Your task to perform on an android device: set default search engine in the chrome app Image 0: 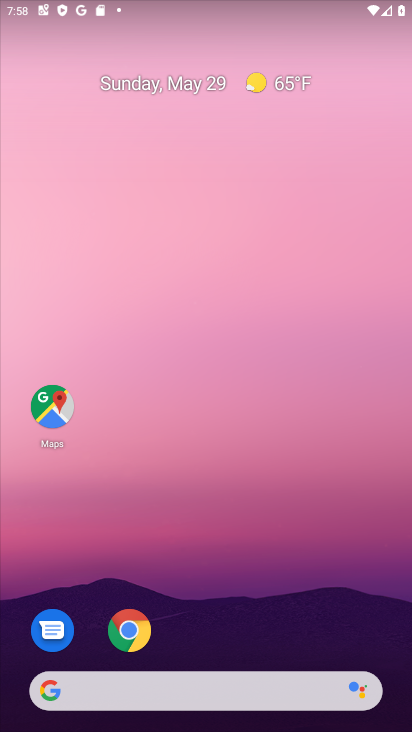
Step 0: click (126, 631)
Your task to perform on an android device: set default search engine in the chrome app Image 1: 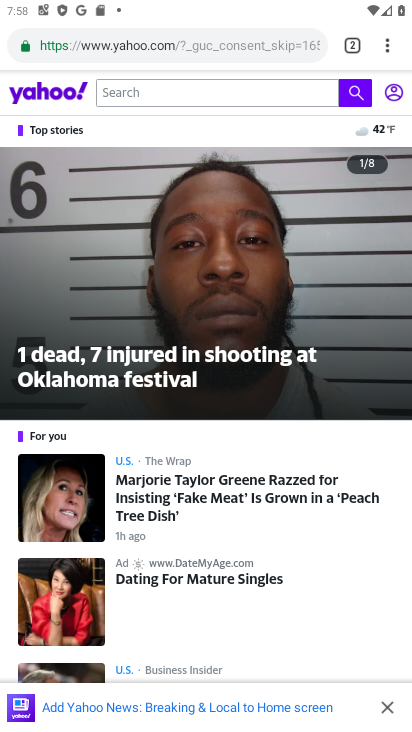
Step 1: click (389, 50)
Your task to perform on an android device: set default search engine in the chrome app Image 2: 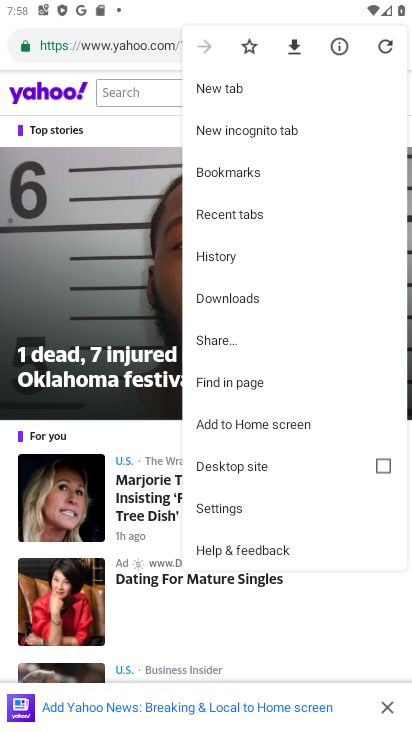
Step 2: click (221, 506)
Your task to perform on an android device: set default search engine in the chrome app Image 3: 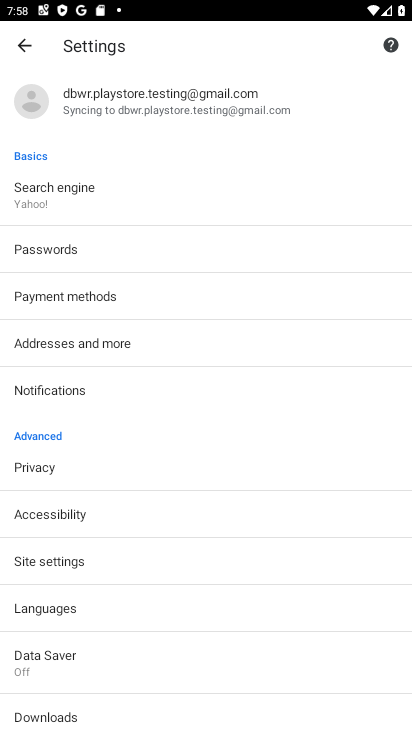
Step 3: click (31, 188)
Your task to perform on an android device: set default search engine in the chrome app Image 4: 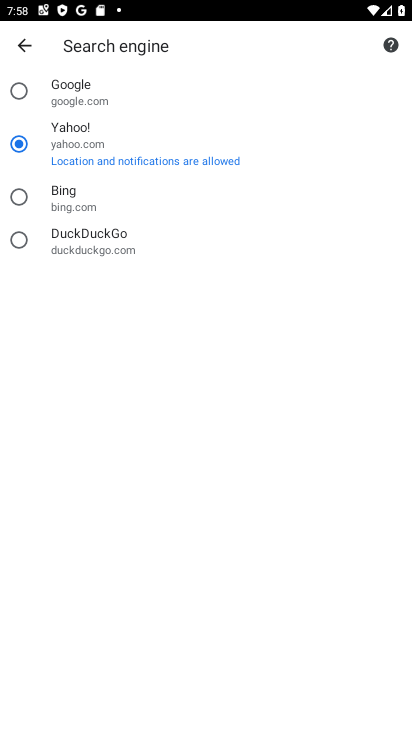
Step 4: click (20, 90)
Your task to perform on an android device: set default search engine in the chrome app Image 5: 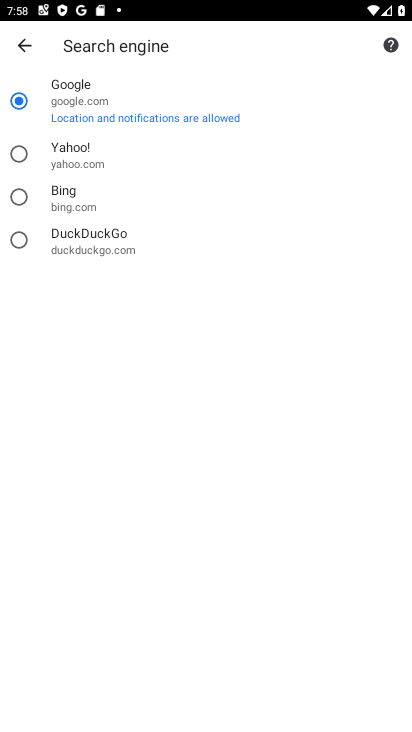
Step 5: task complete